Your task to perform on an android device: show emergency info Image 0: 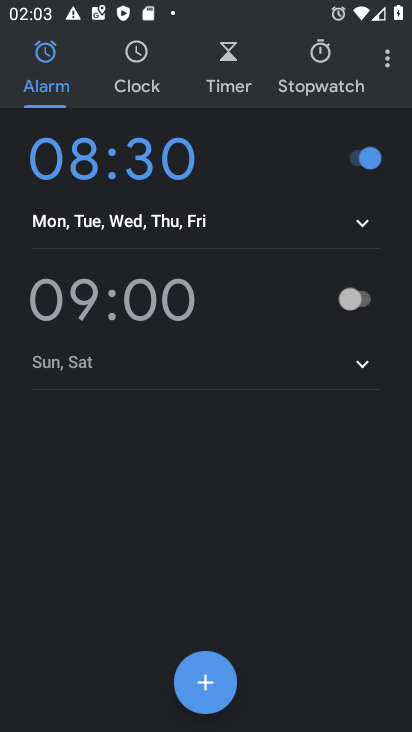
Step 0: press home button
Your task to perform on an android device: show emergency info Image 1: 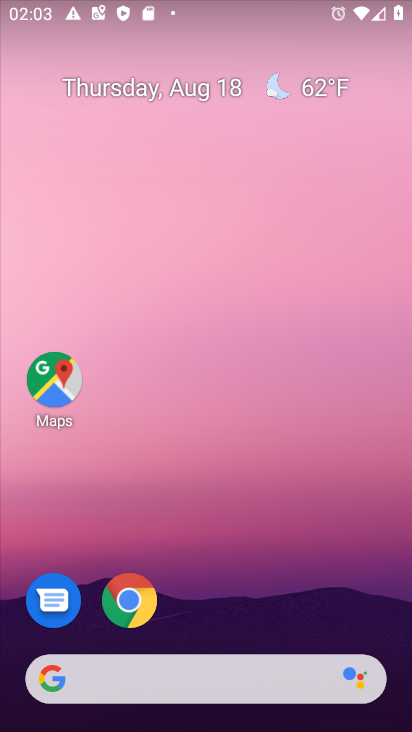
Step 1: drag from (296, 577) to (343, 81)
Your task to perform on an android device: show emergency info Image 2: 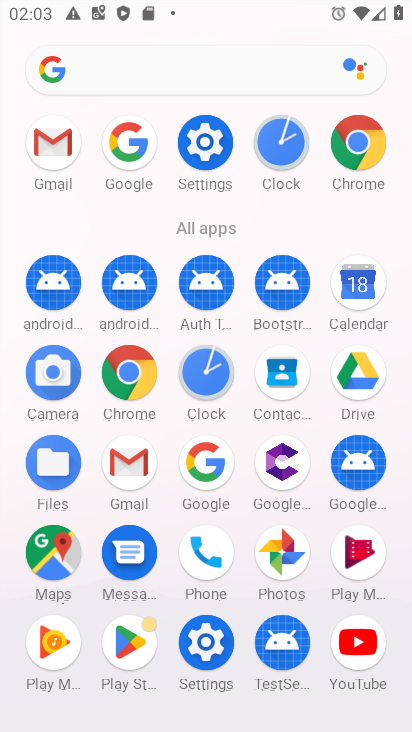
Step 2: click (208, 142)
Your task to perform on an android device: show emergency info Image 3: 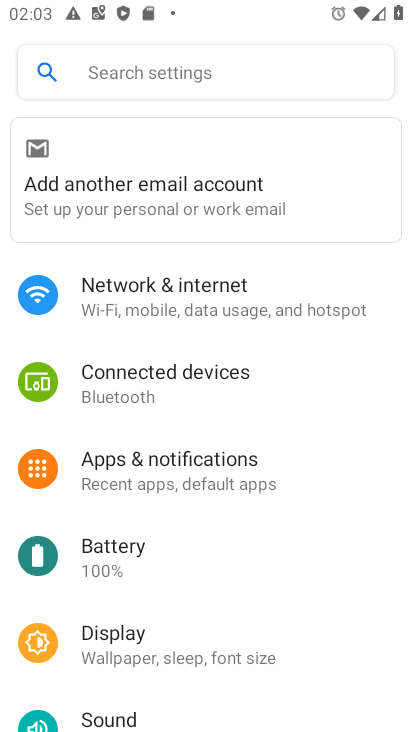
Step 3: drag from (261, 596) to (286, 178)
Your task to perform on an android device: show emergency info Image 4: 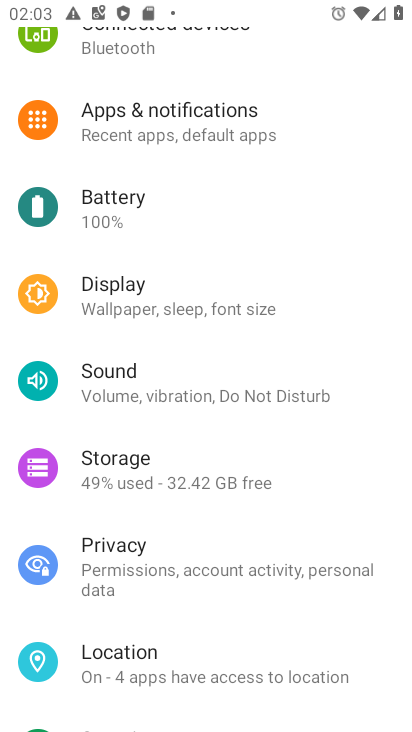
Step 4: drag from (248, 625) to (247, 264)
Your task to perform on an android device: show emergency info Image 5: 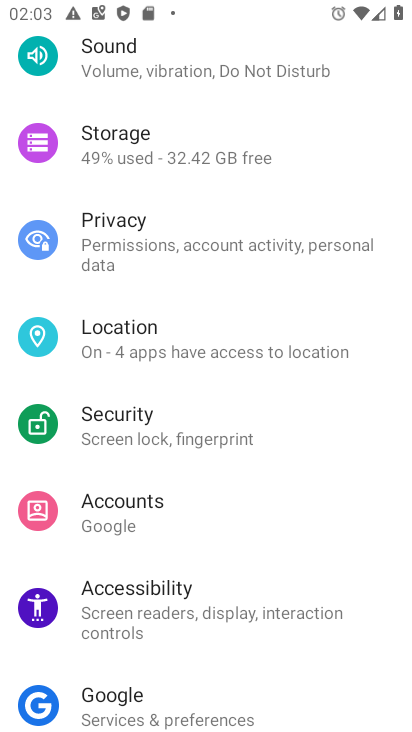
Step 5: drag from (172, 666) to (228, 216)
Your task to perform on an android device: show emergency info Image 6: 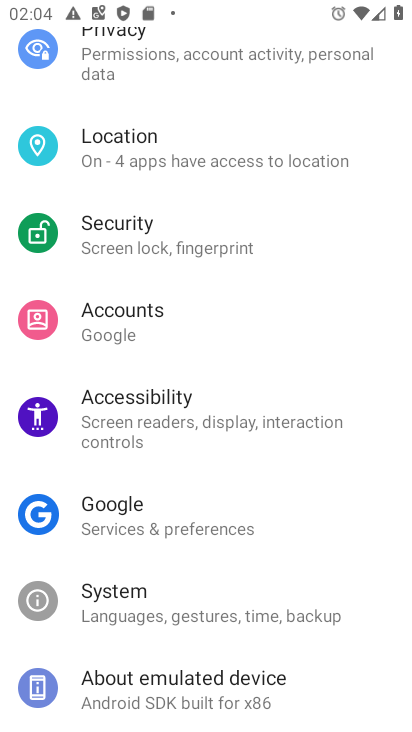
Step 6: click (160, 688)
Your task to perform on an android device: show emergency info Image 7: 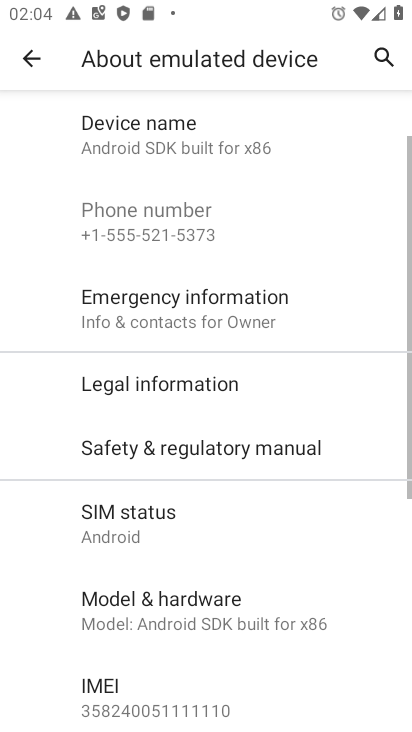
Step 7: click (242, 311)
Your task to perform on an android device: show emergency info Image 8: 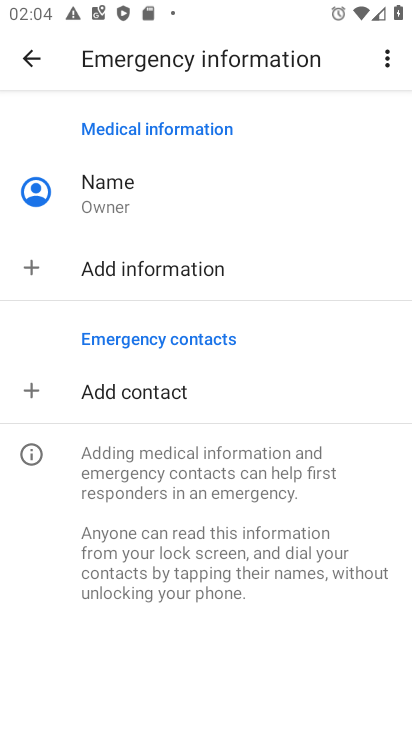
Step 8: task complete